Your task to perform on an android device: add a contact Image 0: 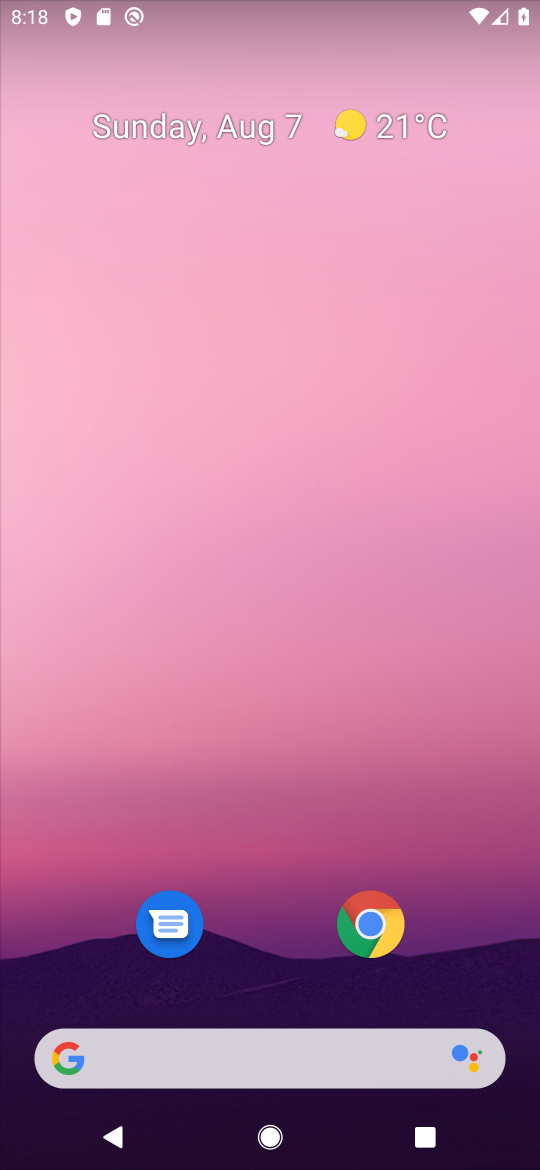
Step 0: drag from (285, 846) to (317, 0)
Your task to perform on an android device: add a contact Image 1: 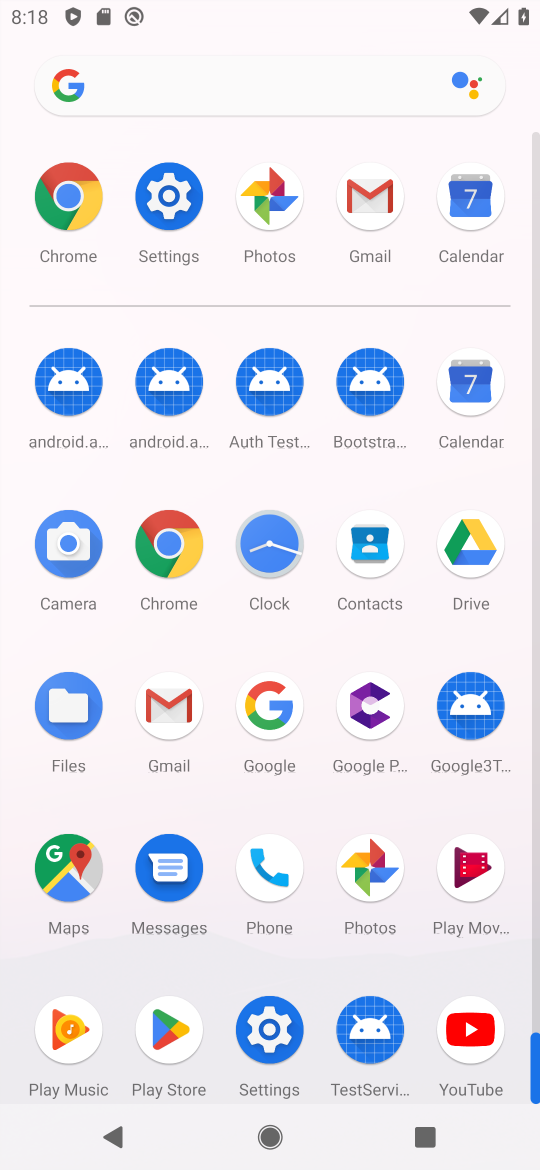
Step 1: click (367, 546)
Your task to perform on an android device: add a contact Image 2: 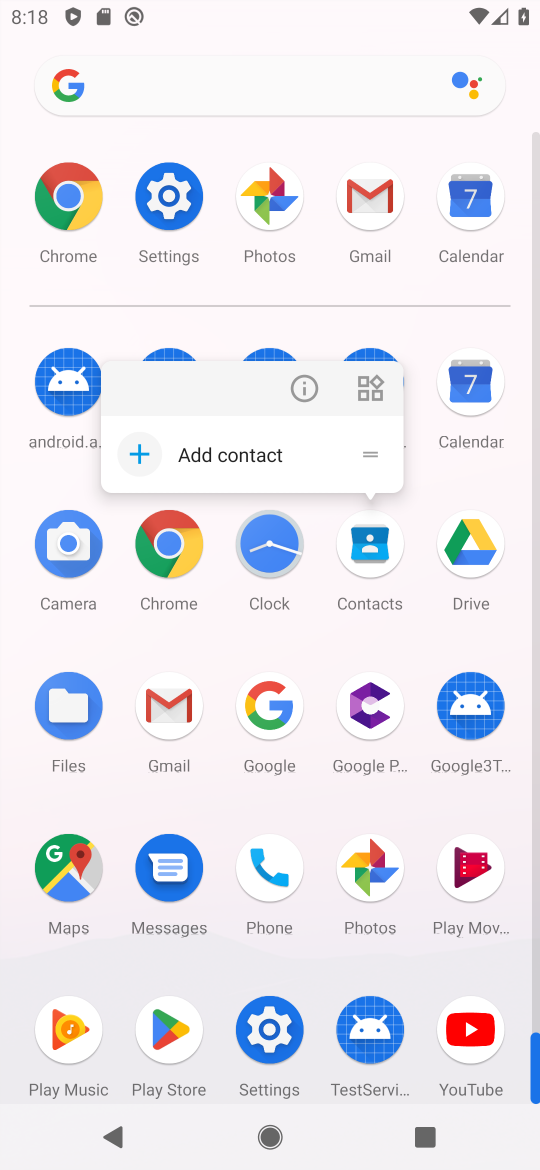
Step 2: click (367, 546)
Your task to perform on an android device: add a contact Image 3: 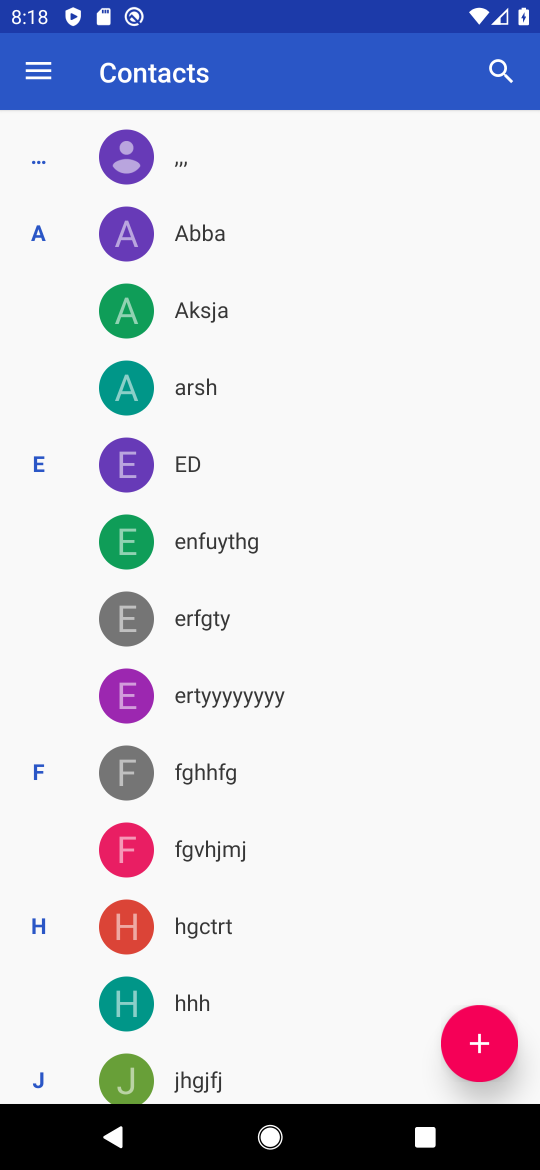
Step 3: click (484, 1039)
Your task to perform on an android device: add a contact Image 4: 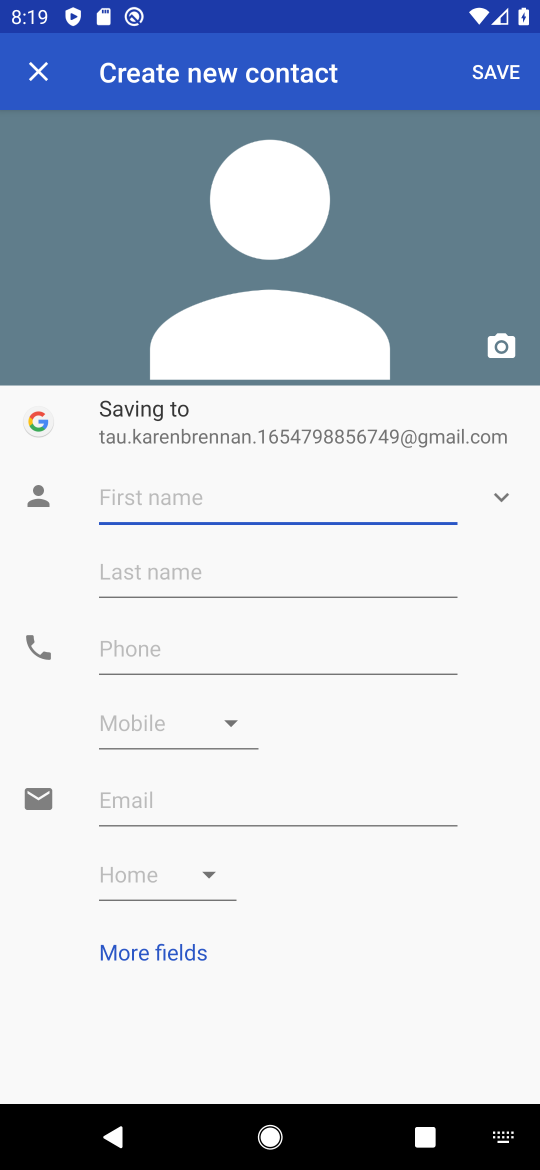
Step 4: type "Abha"
Your task to perform on an android device: add a contact Image 5: 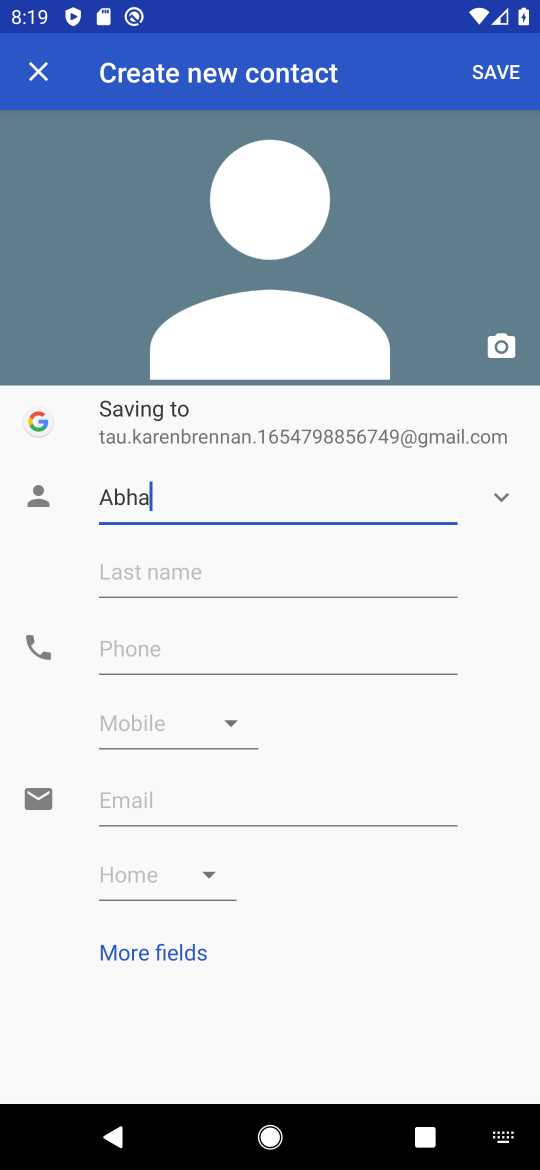
Step 5: click (328, 663)
Your task to perform on an android device: add a contact Image 6: 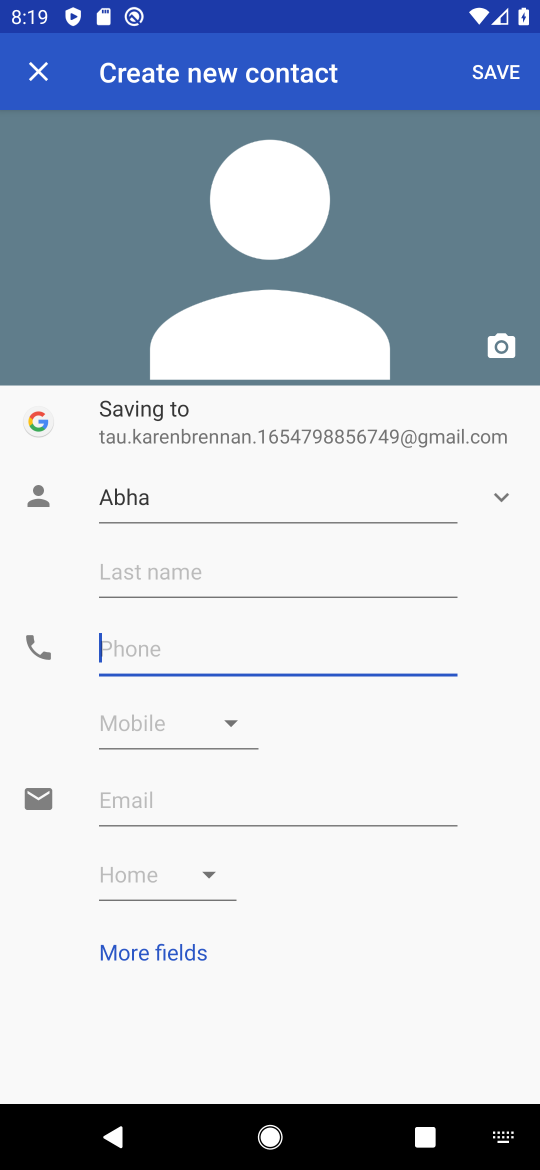
Step 6: type "+91997755331100"
Your task to perform on an android device: add a contact Image 7: 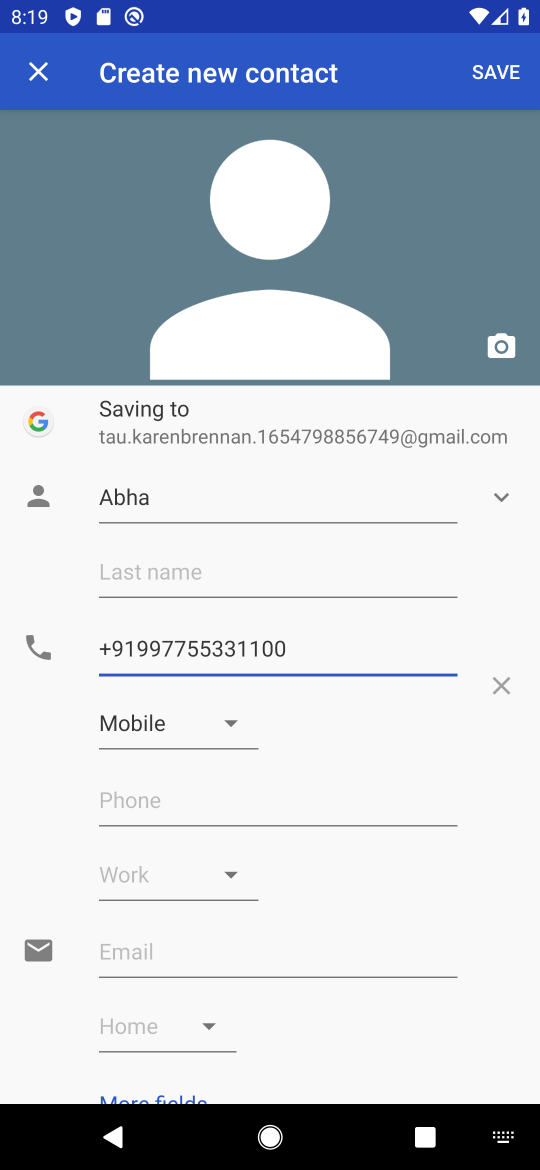
Step 7: click (514, 79)
Your task to perform on an android device: add a contact Image 8: 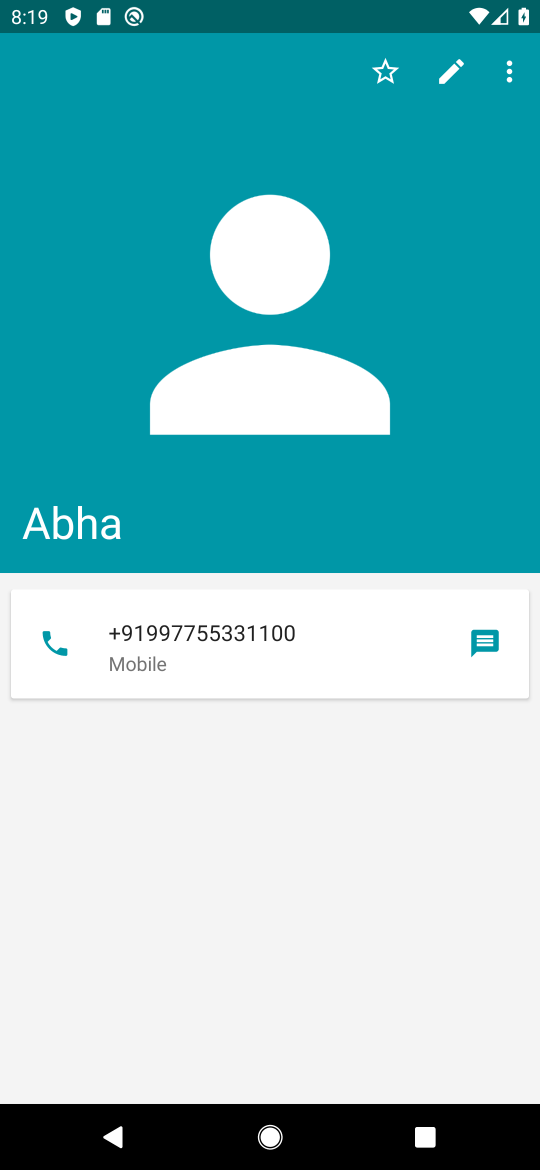
Step 8: task complete